Your task to perform on an android device: toggle wifi Image 0: 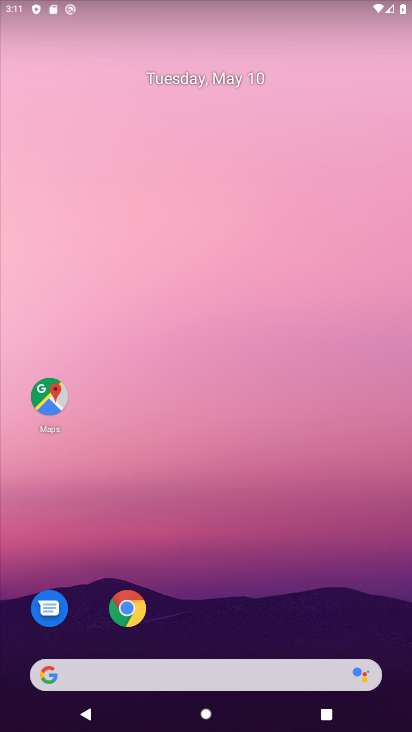
Step 0: drag from (213, 658) to (344, 7)
Your task to perform on an android device: toggle wifi Image 1: 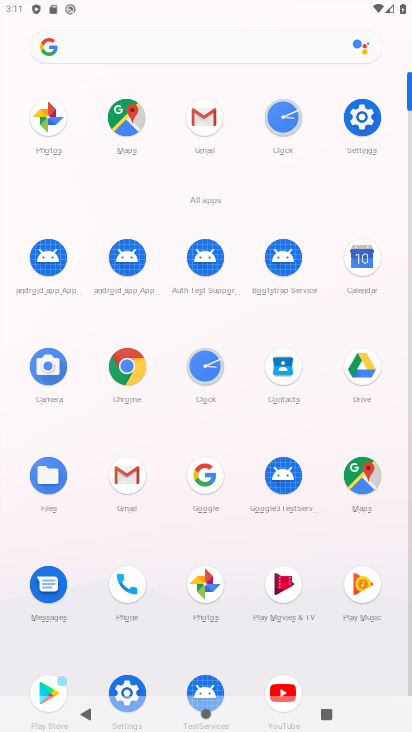
Step 1: click (361, 108)
Your task to perform on an android device: toggle wifi Image 2: 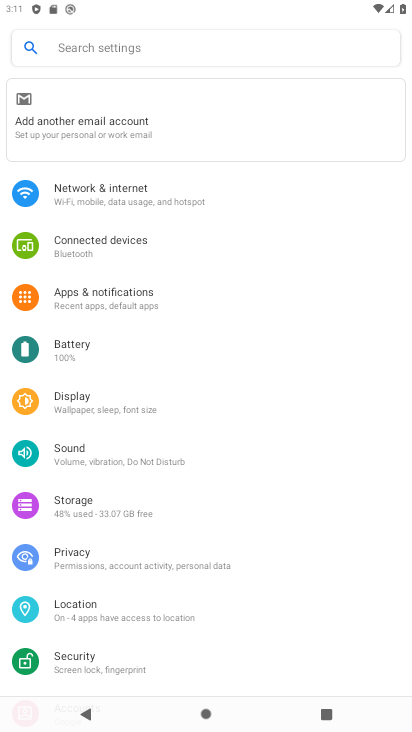
Step 2: click (178, 201)
Your task to perform on an android device: toggle wifi Image 3: 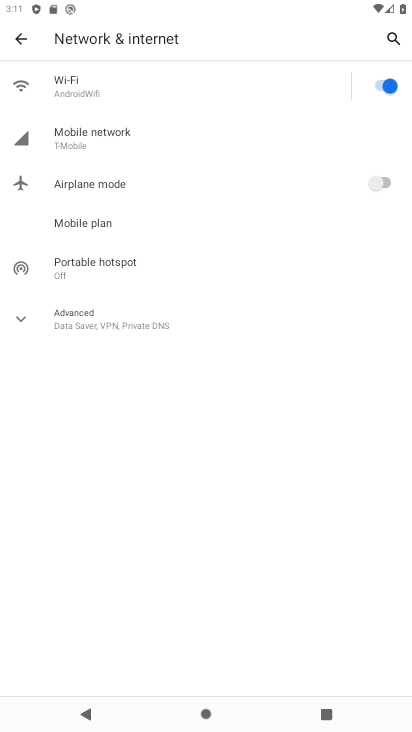
Step 3: click (377, 87)
Your task to perform on an android device: toggle wifi Image 4: 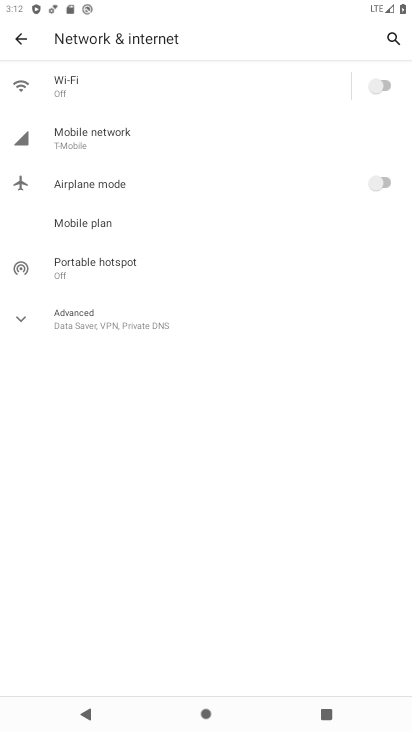
Step 4: task complete